Your task to perform on an android device: Open Reddit.com Image 0: 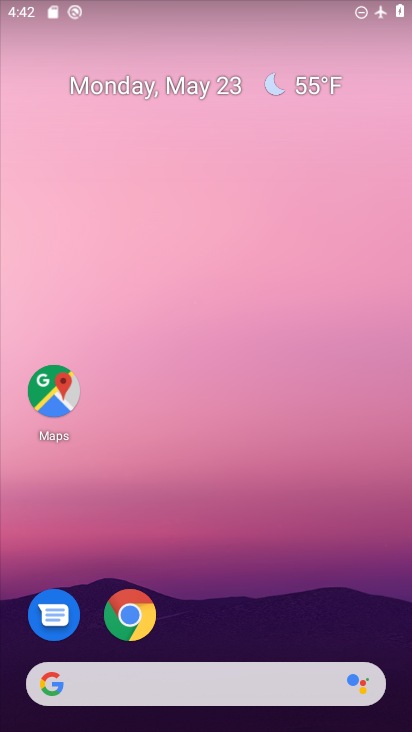
Step 0: drag from (377, 629) to (372, 311)
Your task to perform on an android device: Open Reddit.com Image 1: 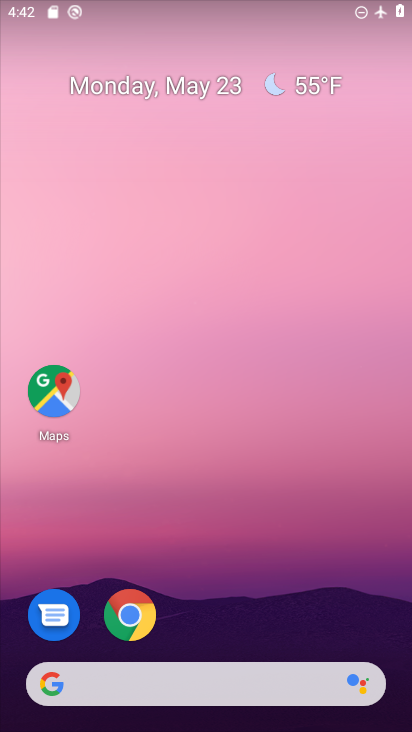
Step 1: drag from (372, 599) to (366, 158)
Your task to perform on an android device: Open Reddit.com Image 2: 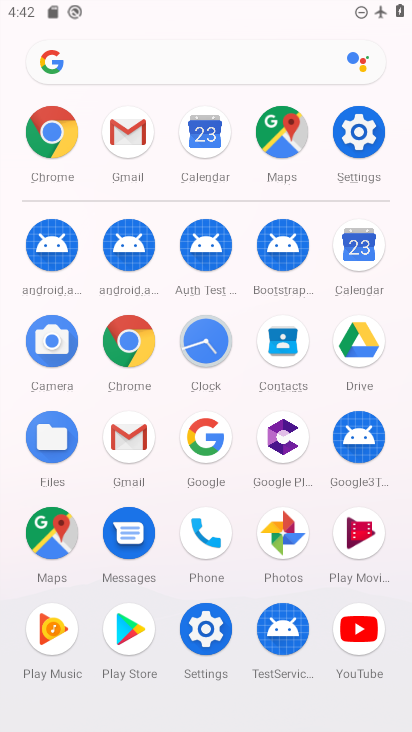
Step 2: click (135, 355)
Your task to perform on an android device: Open Reddit.com Image 3: 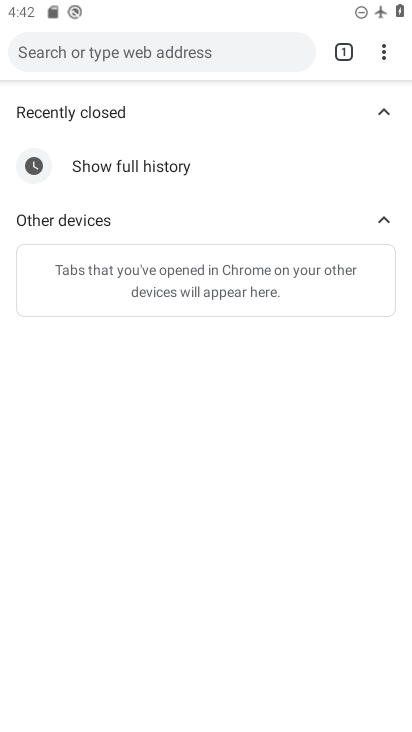
Step 3: click (245, 63)
Your task to perform on an android device: Open Reddit.com Image 4: 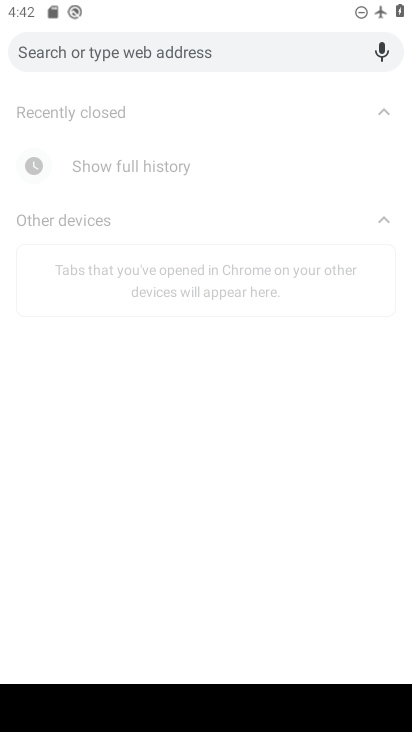
Step 4: type "reddit.com"
Your task to perform on an android device: Open Reddit.com Image 5: 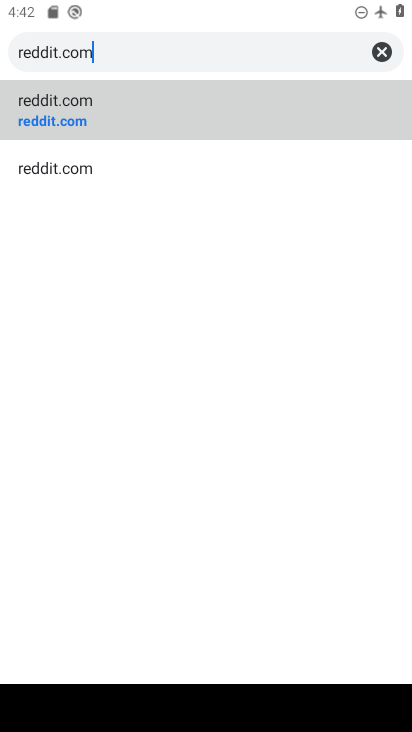
Step 5: click (169, 106)
Your task to perform on an android device: Open Reddit.com Image 6: 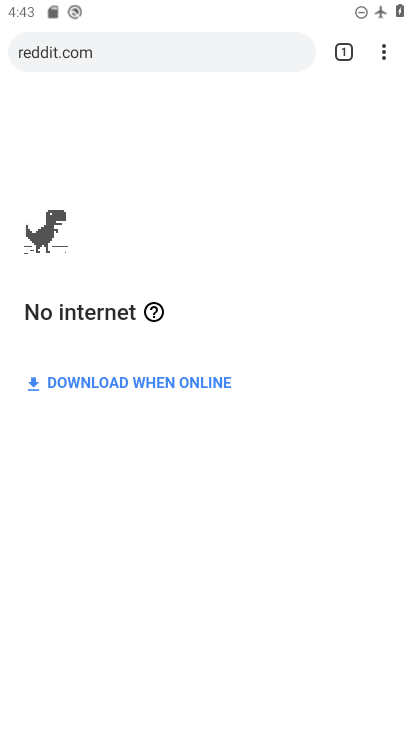
Step 6: task complete